Your task to perform on an android device: Open privacy settings Image 0: 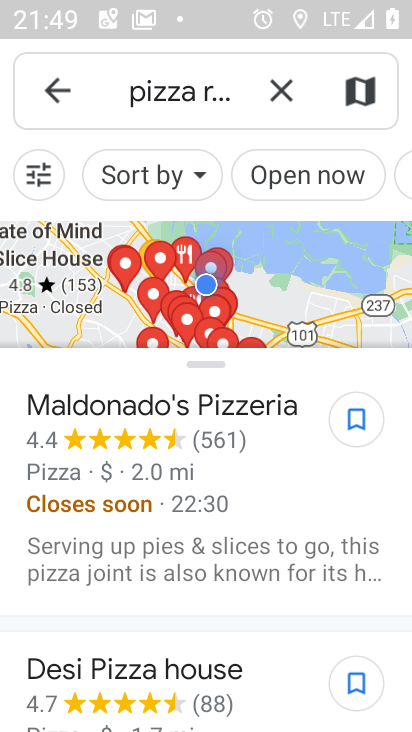
Step 0: press home button
Your task to perform on an android device: Open privacy settings Image 1: 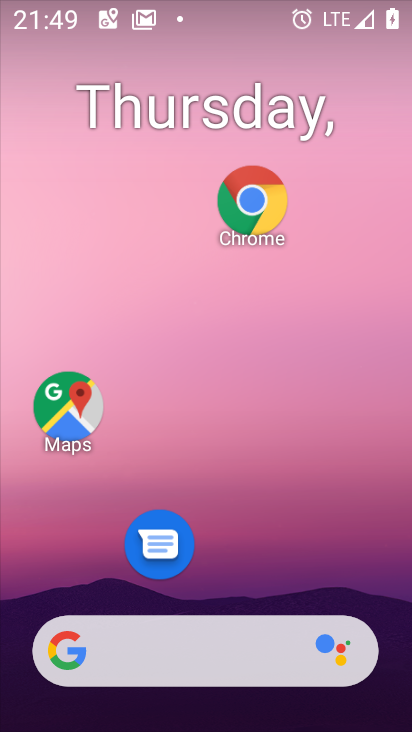
Step 1: drag from (181, 606) to (149, 90)
Your task to perform on an android device: Open privacy settings Image 2: 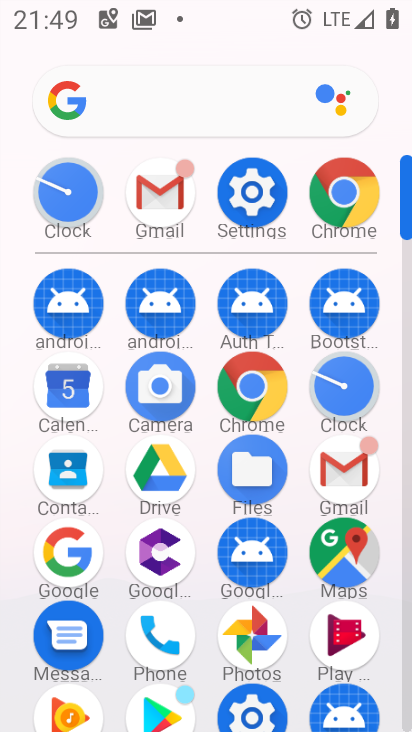
Step 2: click (252, 218)
Your task to perform on an android device: Open privacy settings Image 3: 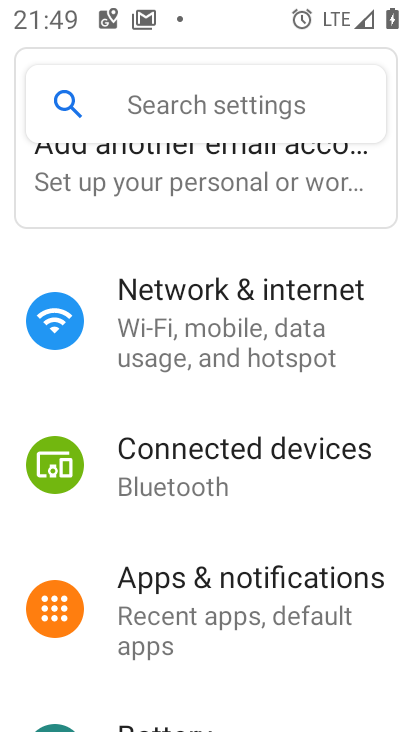
Step 3: drag from (77, 572) to (157, 200)
Your task to perform on an android device: Open privacy settings Image 4: 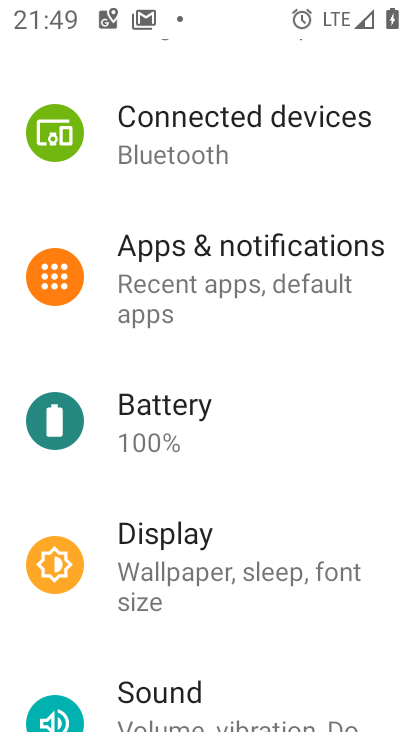
Step 4: drag from (104, 640) to (204, 170)
Your task to perform on an android device: Open privacy settings Image 5: 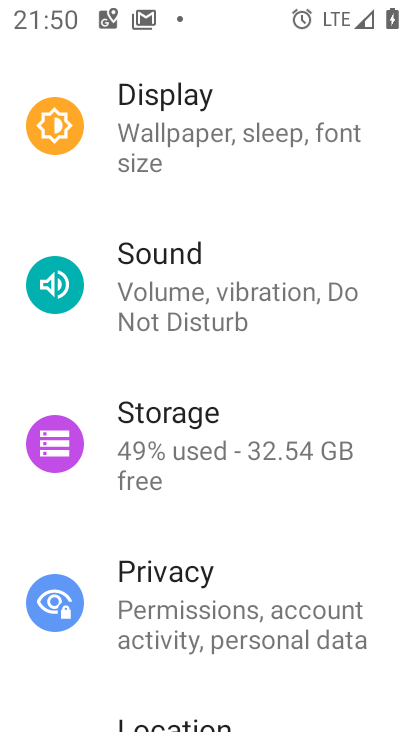
Step 5: click (82, 607)
Your task to perform on an android device: Open privacy settings Image 6: 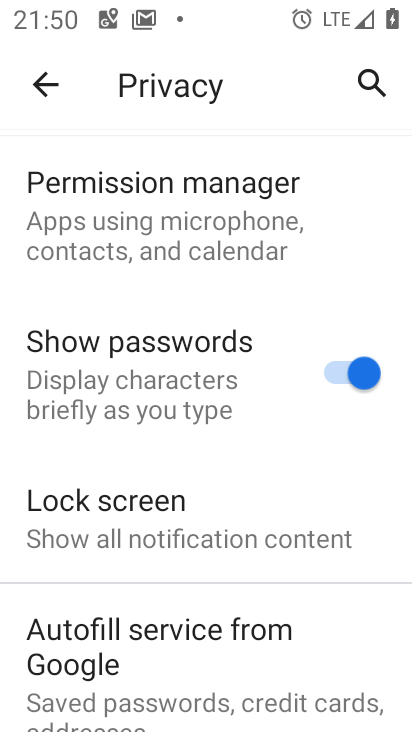
Step 6: task complete